Your task to perform on an android device: turn off data saver in the chrome app Image 0: 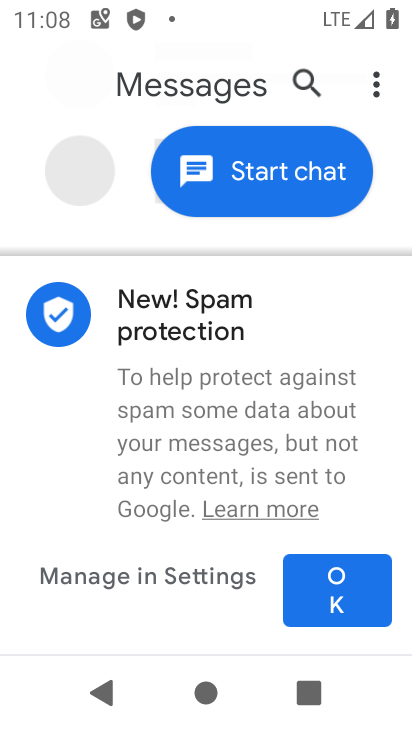
Step 0: drag from (190, 15) to (187, 538)
Your task to perform on an android device: turn off data saver in the chrome app Image 1: 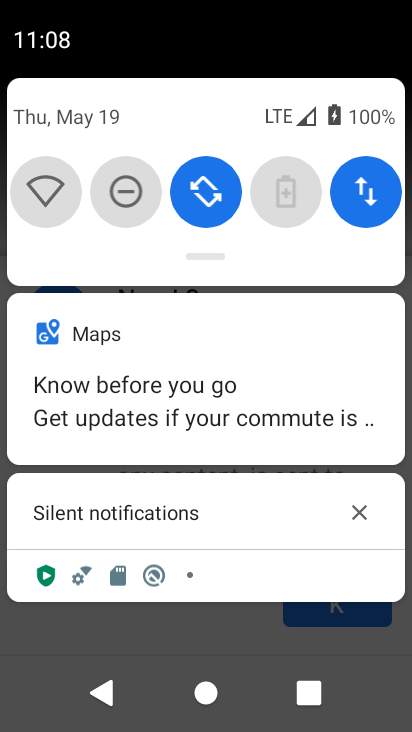
Step 1: click (204, 634)
Your task to perform on an android device: turn off data saver in the chrome app Image 2: 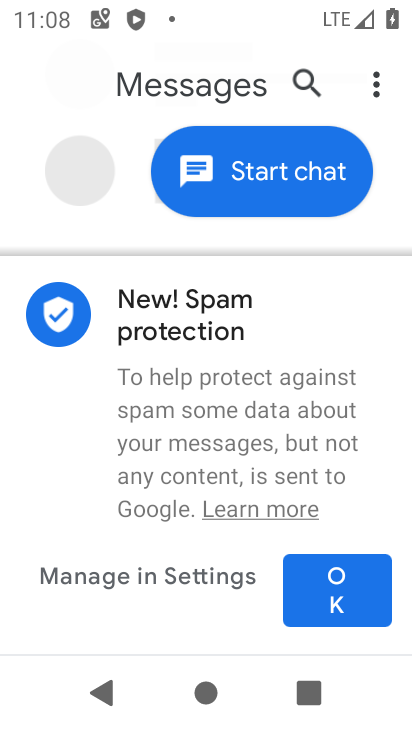
Step 2: press back button
Your task to perform on an android device: turn off data saver in the chrome app Image 3: 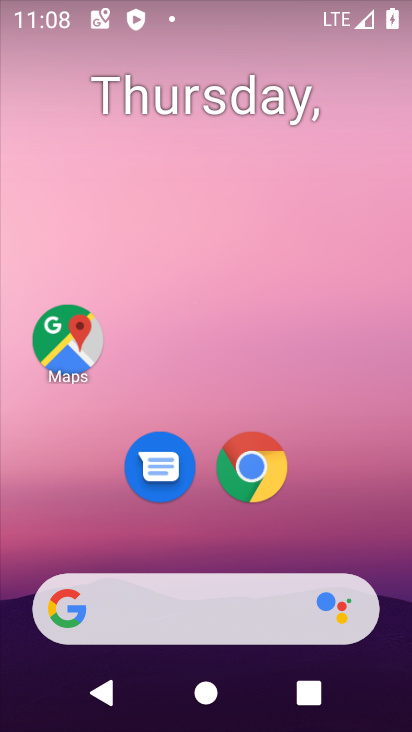
Step 3: drag from (203, 565) to (299, 136)
Your task to perform on an android device: turn off data saver in the chrome app Image 4: 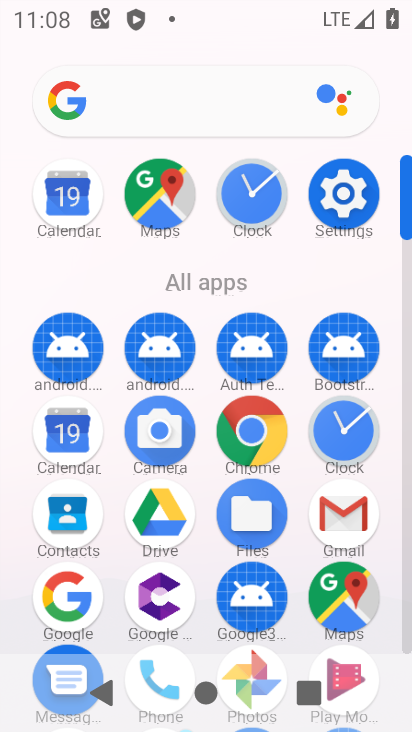
Step 4: click (263, 421)
Your task to perform on an android device: turn off data saver in the chrome app Image 5: 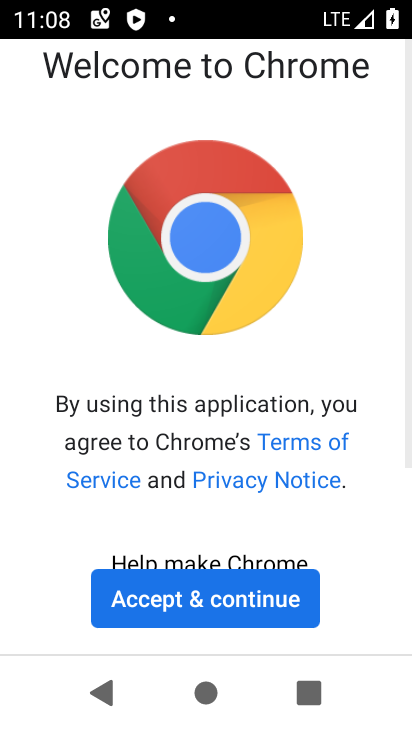
Step 5: click (180, 584)
Your task to perform on an android device: turn off data saver in the chrome app Image 6: 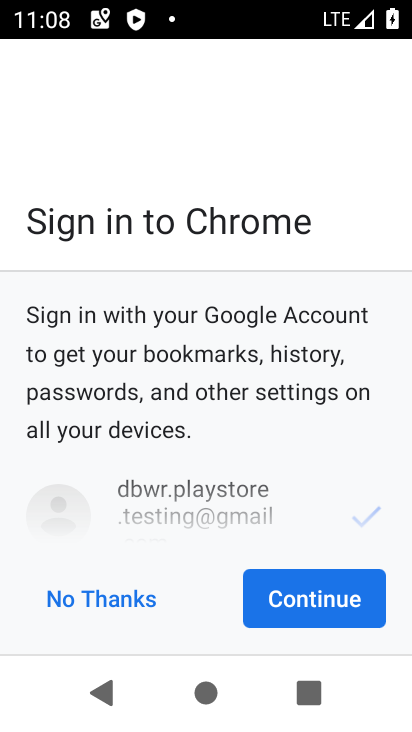
Step 6: click (332, 589)
Your task to perform on an android device: turn off data saver in the chrome app Image 7: 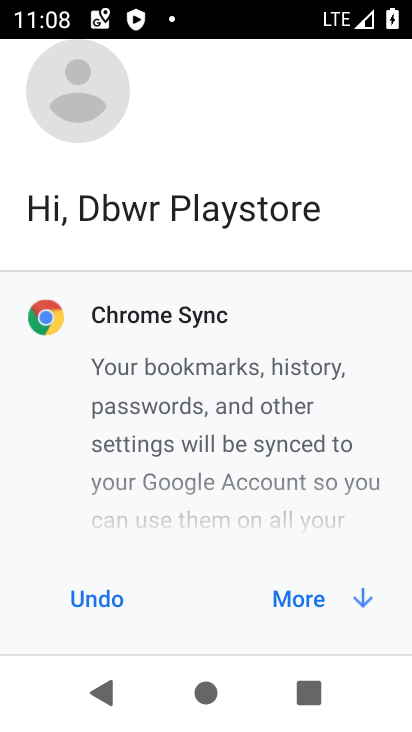
Step 7: click (327, 612)
Your task to perform on an android device: turn off data saver in the chrome app Image 8: 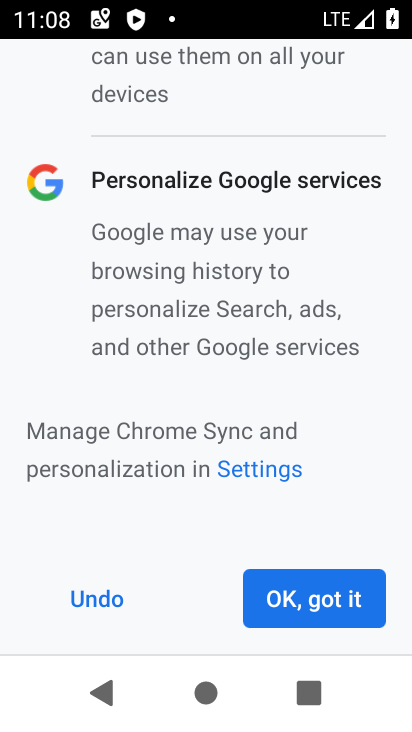
Step 8: click (320, 612)
Your task to perform on an android device: turn off data saver in the chrome app Image 9: 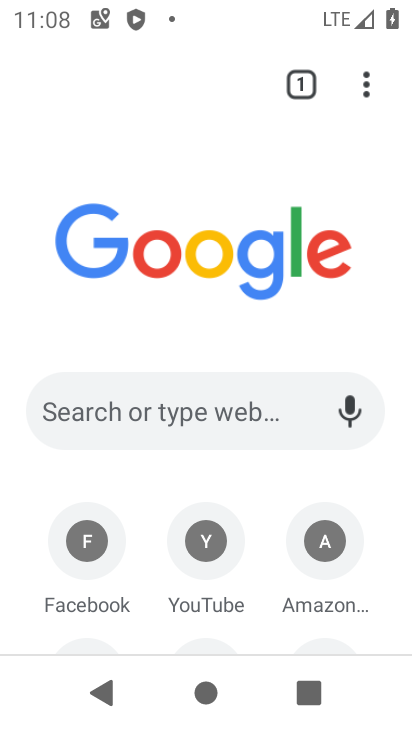
Step 9: drag from (359, 78) to (102, 526)
Your task to perform on an android device: turn off data saver in the chrome app Image 10: 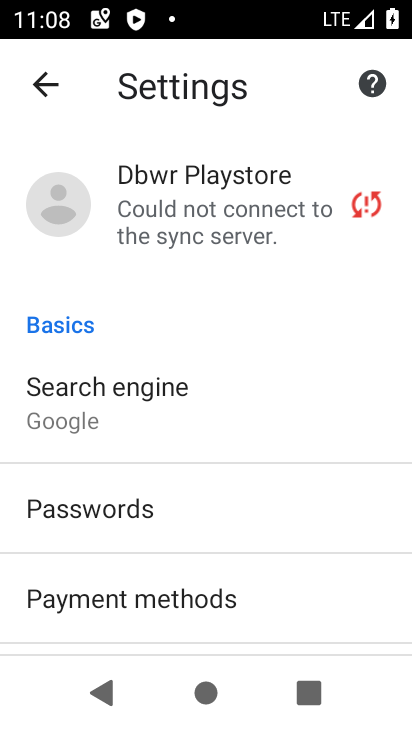
Step 10: drag from (188, 569) to (264, 141)
Your task to perform on an android device: turn off data saver in the chrome app Image 11: 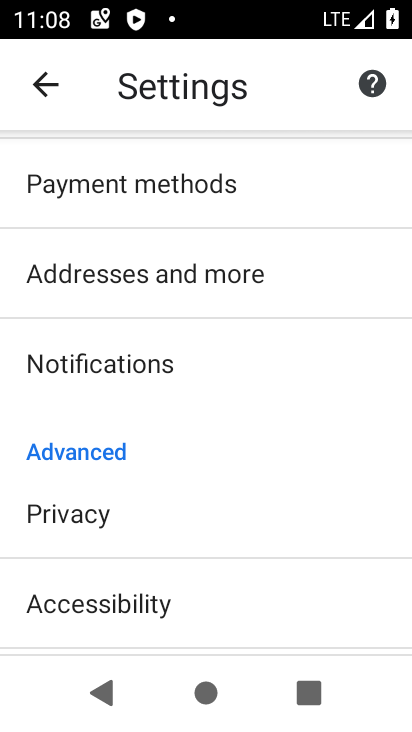
Step 11: drag from (215, 614) to (276, 240)
Your task to perform on an android device: turn off data saver in the chrome app Image 12: 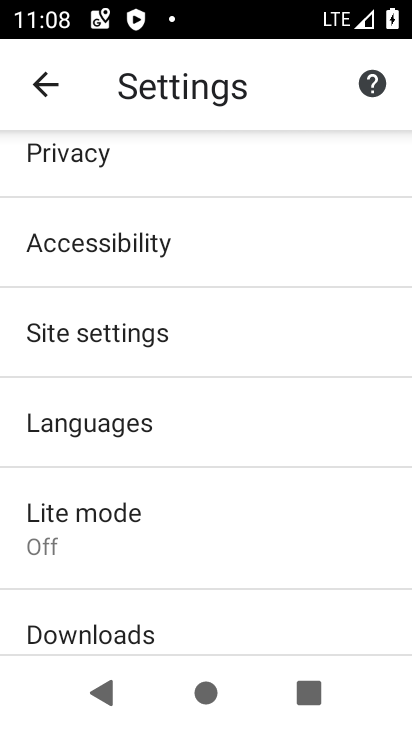
Step 12: click (136, 529)
Your task to perform on an android device: turn off data saver in the chrome app Image 13: 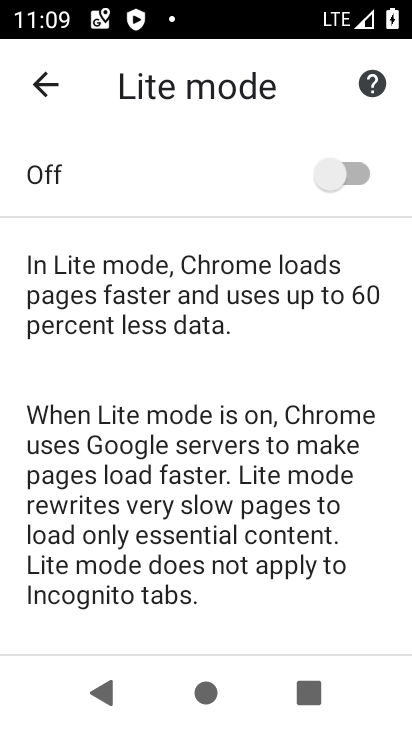
Step 13: task complete